Your task to perform on an android device: Open the calendar and show me this week's events? Image 0: 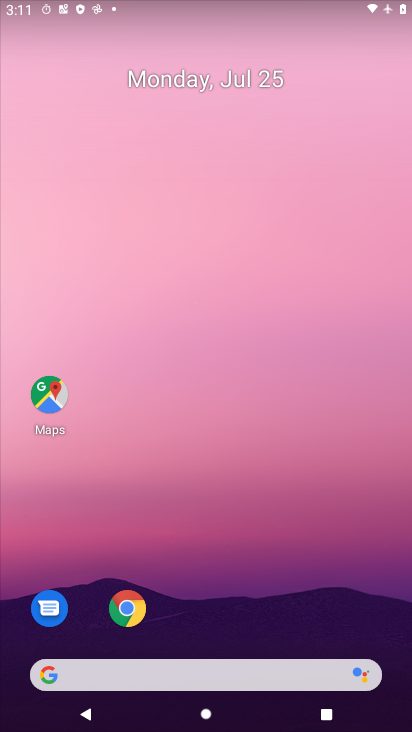
Step 0: drag from (216, 667) to (227, 73)
Your task to perform on an android device: Open the calendar and show me this week's events? Image 1: 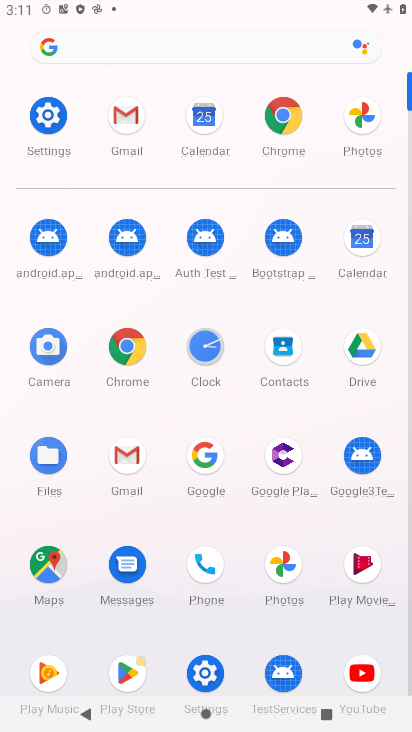
Step 1: click (361, 249)
Your task to perform on an android device: Open the calendar and show me this week's events? Image 2: 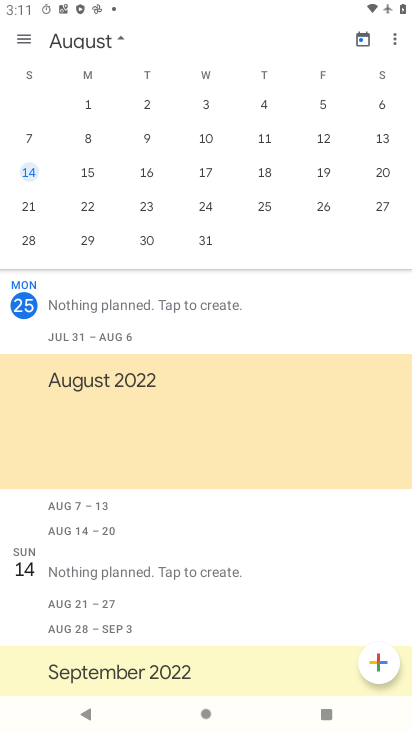
Step 2: drag from (100, 185) to (402, 294)
Your task to perform on an android device: Open the calendar and show me this week's events? Image 3: 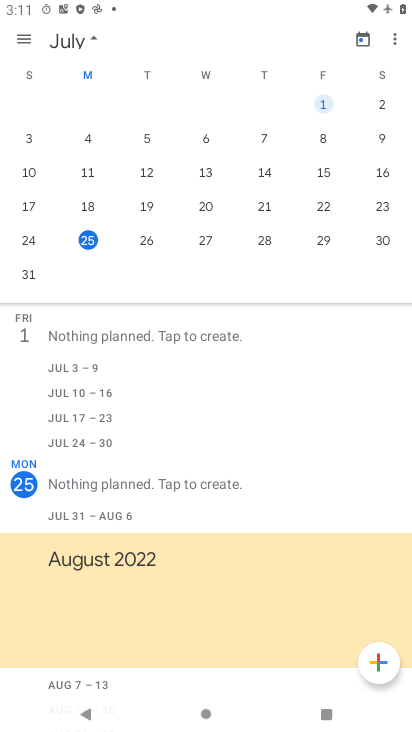
Step 3: click (90, 239)
Your task to perform on an android device: Open the calendar and show me this week's events? Image 4: 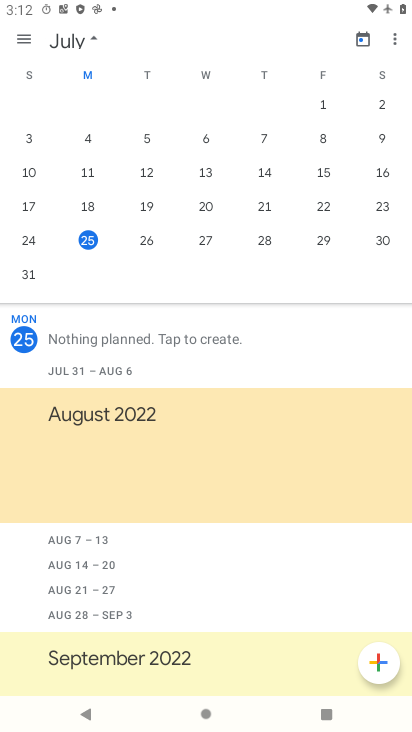
Step 4: task complete